Your task to perform on an android device: turn off airplane mode Image 0: 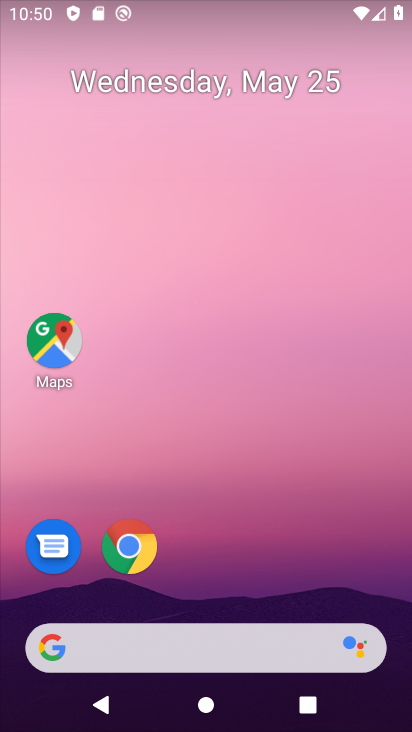
Step 0: drag from (207, 543) to (235, 151)
Your task to perform on an android device: turn off airplane mode Image 1: 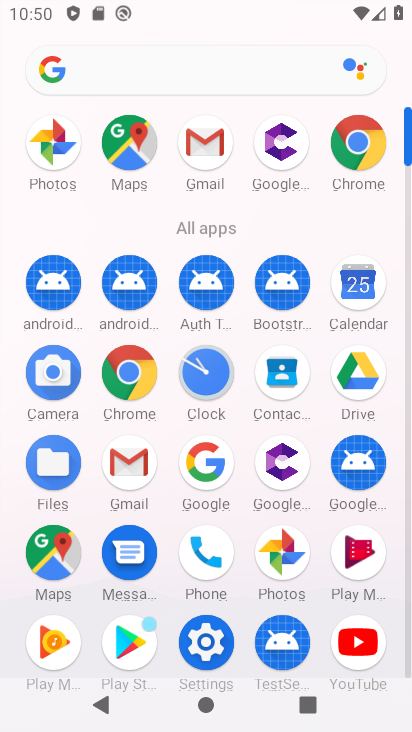
Step 1: click (212, 662)
Your task to perform on an android device: turn off airplane mode Image 2: 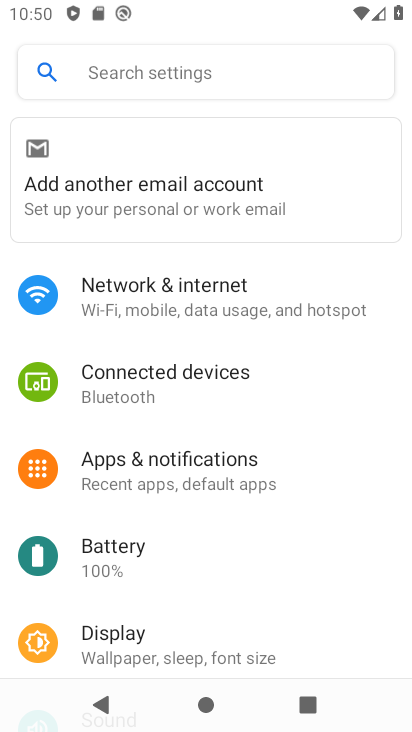
Step 2: click (182, 308)
Your task to perform on an android device: turn off airplane mode Image 3: 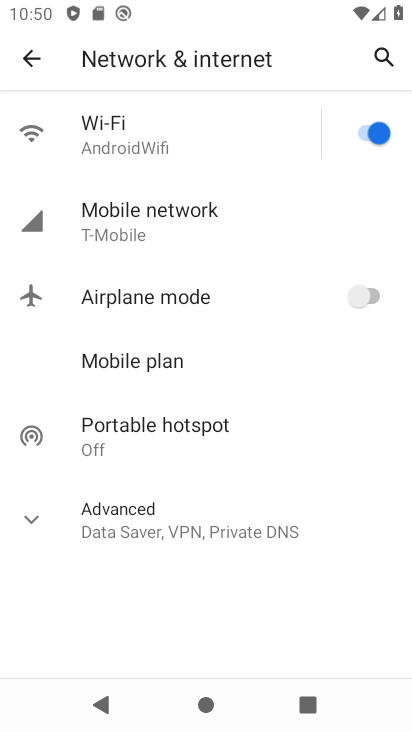
Step 3: task complete